Your task to perform on an android device: see creations saved in the google photos Image 0: 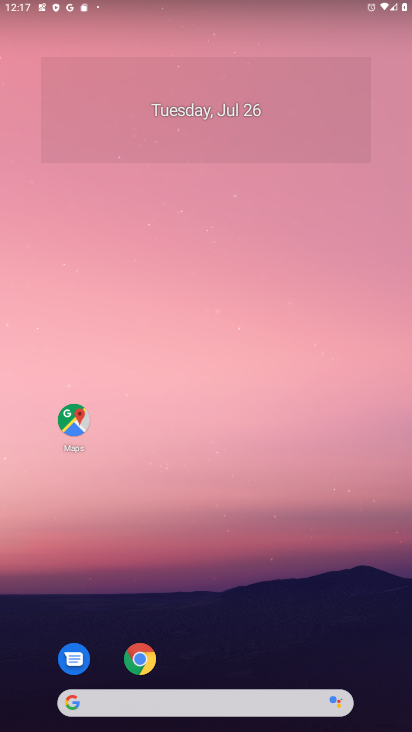
Step 0: drag from (243, 613) to (183, 67)
Your task to perform on an android device: see creations saved in the google photos Image 1: 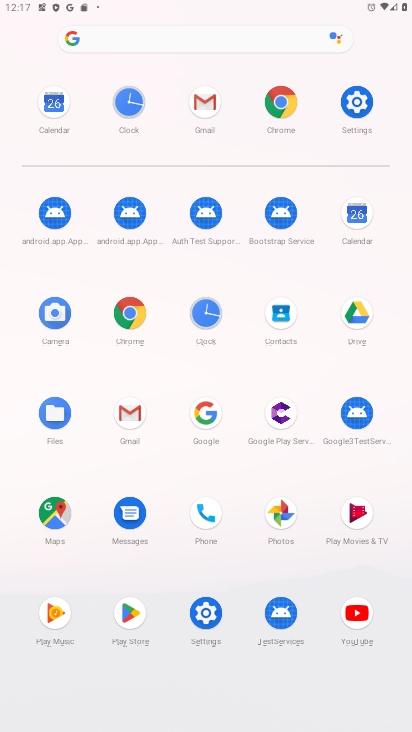
Step 1: click (274, 511)
Your task to perform on an android device: see creations saved in the google photos Image 2: 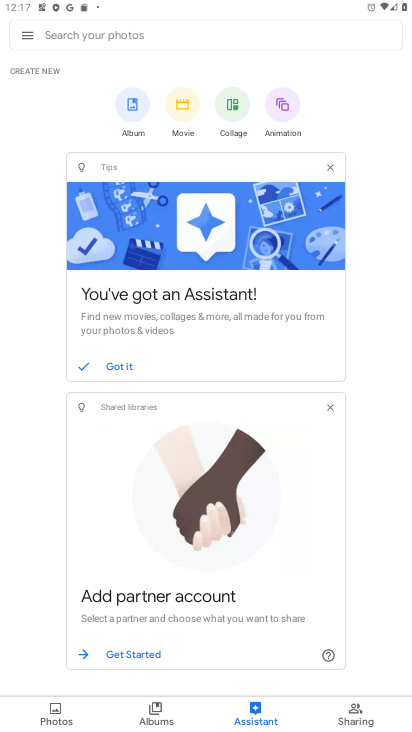
Step 2: click (116, 31)
Your task to perform on an android device: see creations saved in the google photos Image 3: 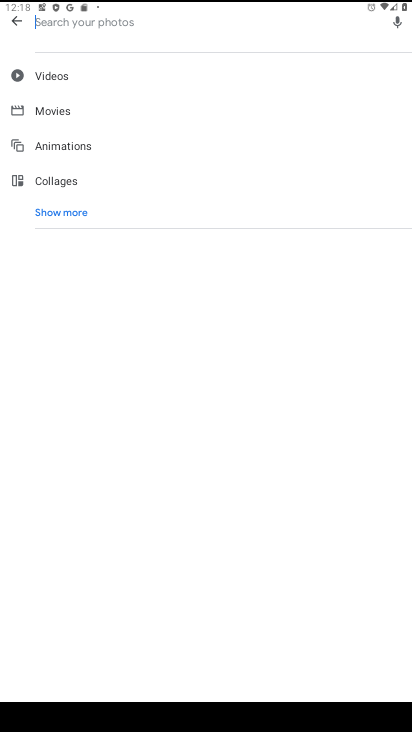
Step 3: click (52, 203)
Your task to perform on an android device: see creations saved in the google photos Image 4: 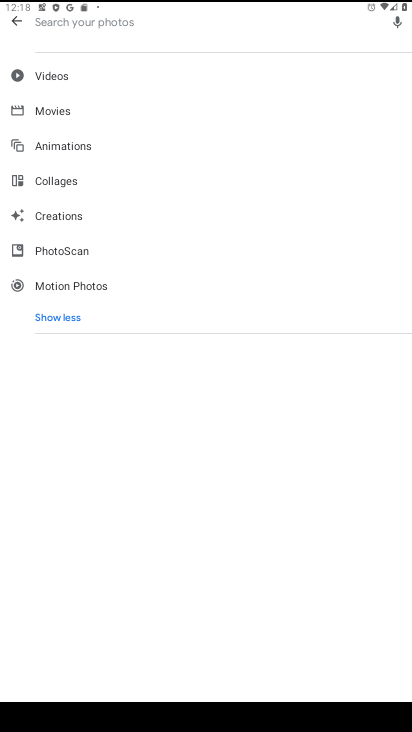
Step 4: click (60, 212)
Your task to perform on an android device: see creations saved in the google photos Image 5: 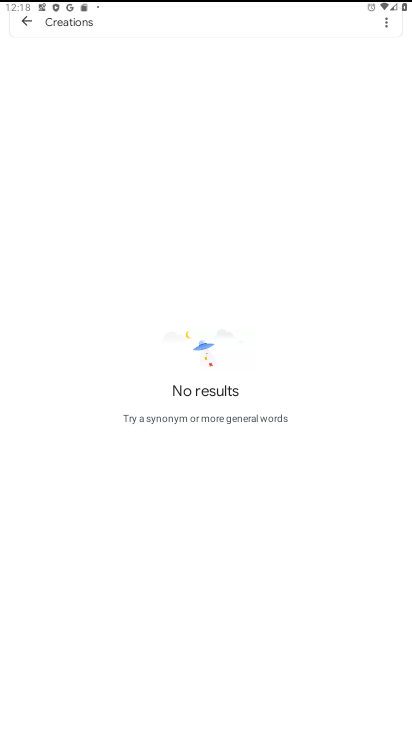
Step 5: task complete